Your task to perform on an android device: turn on wifi Image 0: 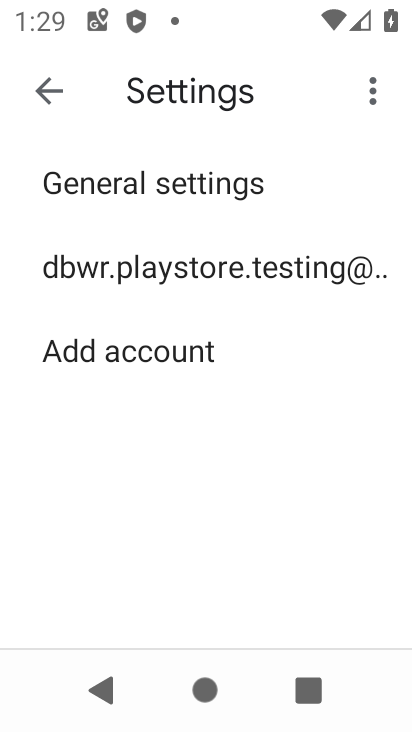
Step 0: press home button
Your task to perform on an android device: turn on wifi Image 1: 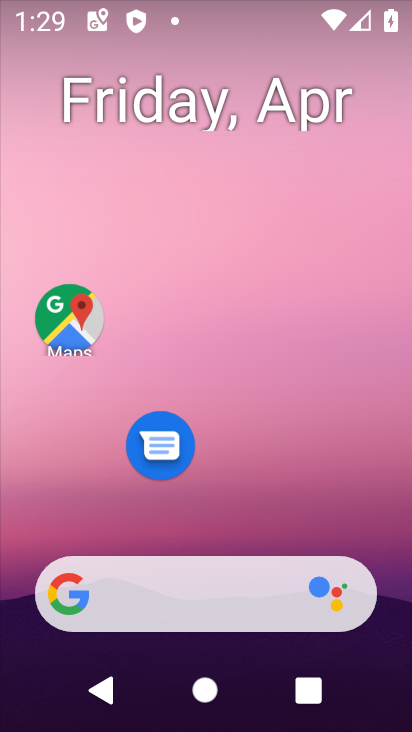
Step 1: drag from (303, 500) to (207, 56)
Your task to perform on an android device: turn on wifi Image 2: 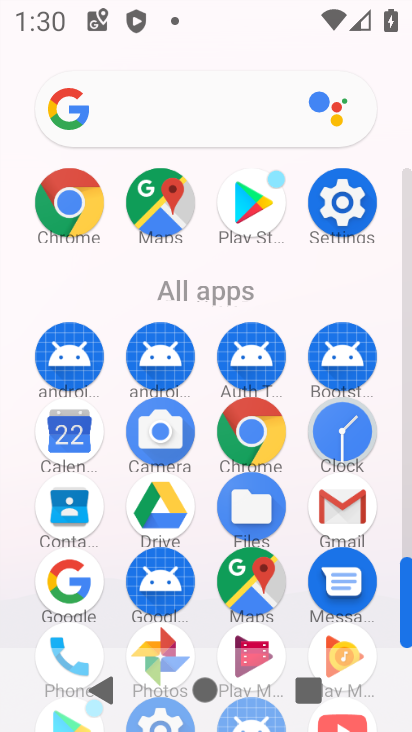
Step 2: click (348, 210)
Your task to perform on an android device: turn on wifi Image 3: 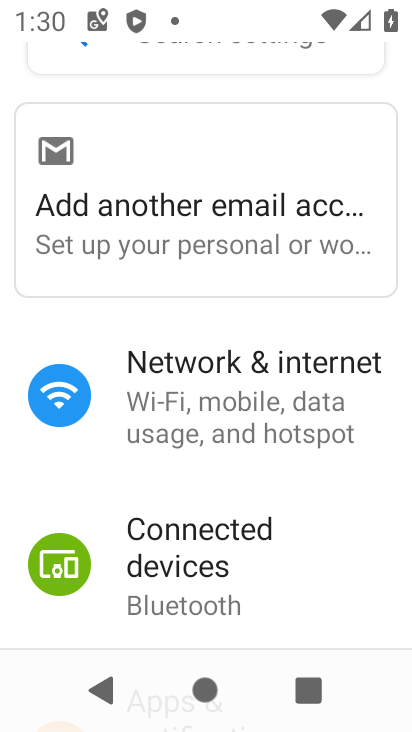
Step 3: click (274, 447)
Your task to perform on an android device: turn on wifi Image 4: 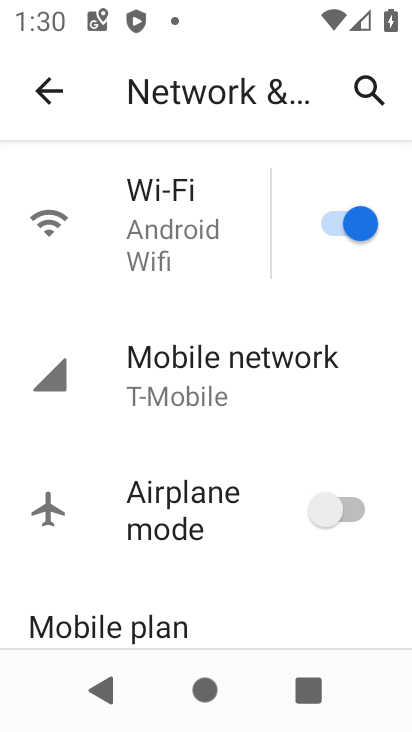
Step 4: task complete